Your task to perform on an android device: Go to Reddit.com Image 0: 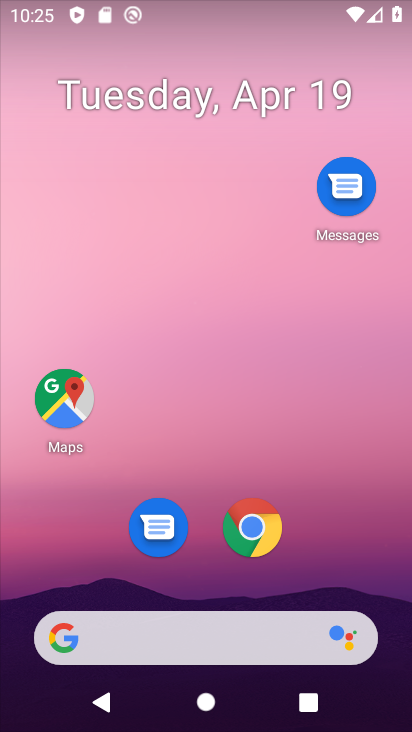
Step 0: click (261, 548)
Your task to perform on an android device: Go to Reddit.com Image 1: 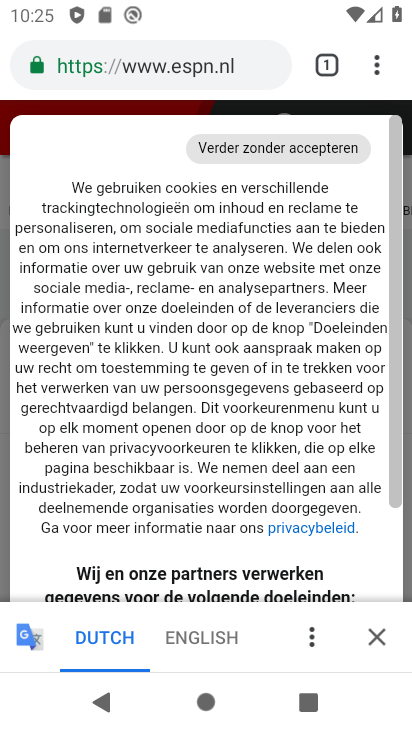
Step 1: click (175, 71)
Your task to perform on an android device: Go to Reddit.com Image 2: 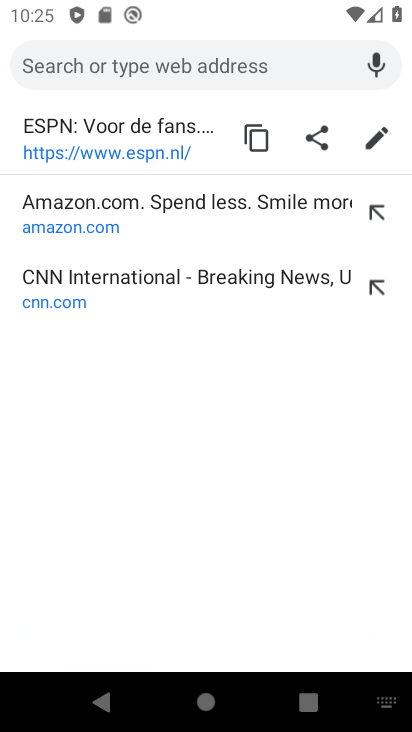
Step 2: type "Reddit.com"
Your task to perform on an android device: Go to Reddit.com Image 3: 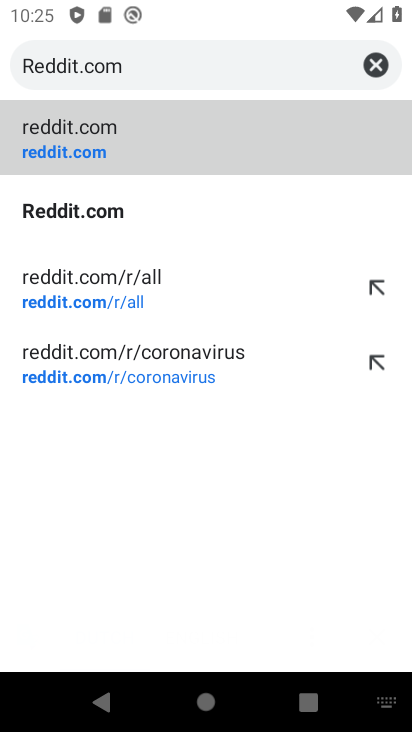
Step 3: click (103, 143)
Your task to perform on an android device: Go to Reddit.com Image 4: 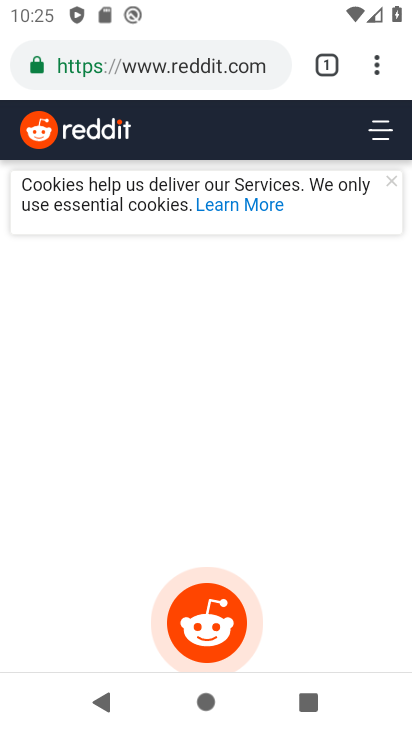
Step 4: task complete